Your task to perform on an android device: Open location settings Image 0: 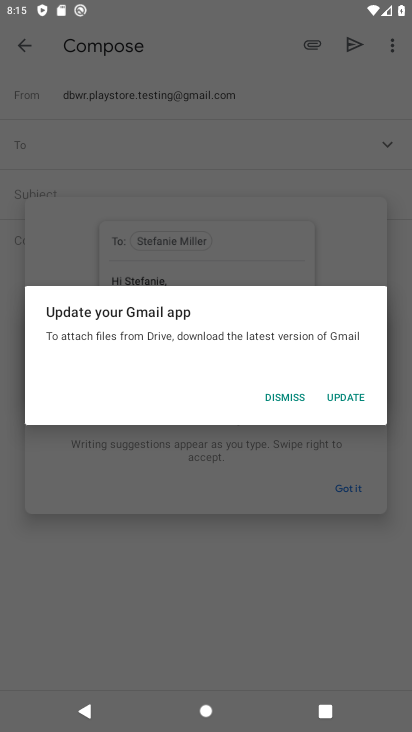
Step 0: press home button
Your task to perform on an android device: Open location settings Image 1: 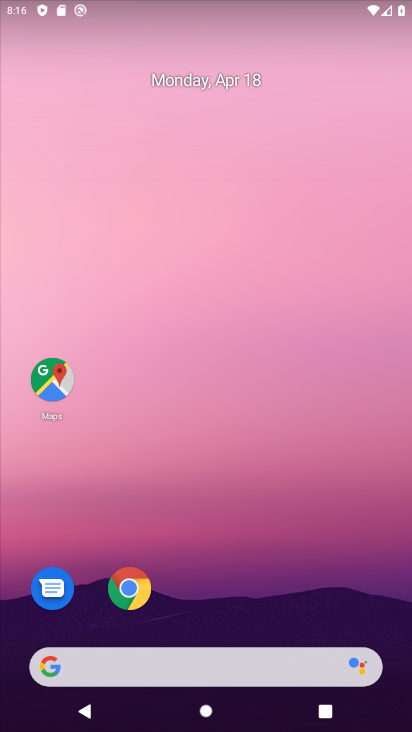
Step 1: drag from (192, 527) to (193, 60)
Your task to perform on an android device: Open location settings Image 2: 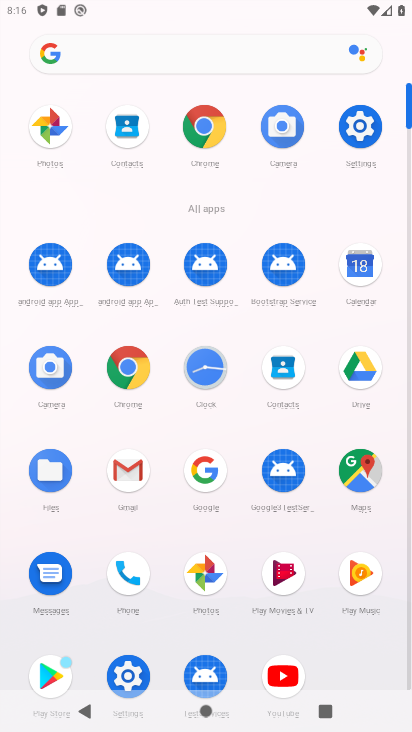
Step 2: click (358, 130)
Your task to perform on an android device: Open location settings Image 3: 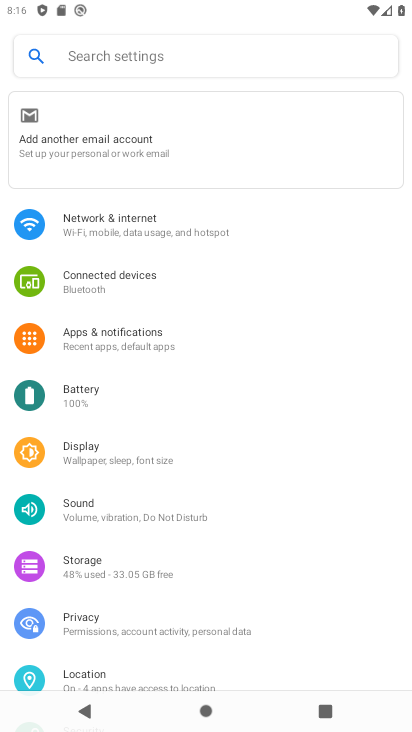
Step 3: click (112, 674)
Your task to perform on an android device: Open location settings Image 4: 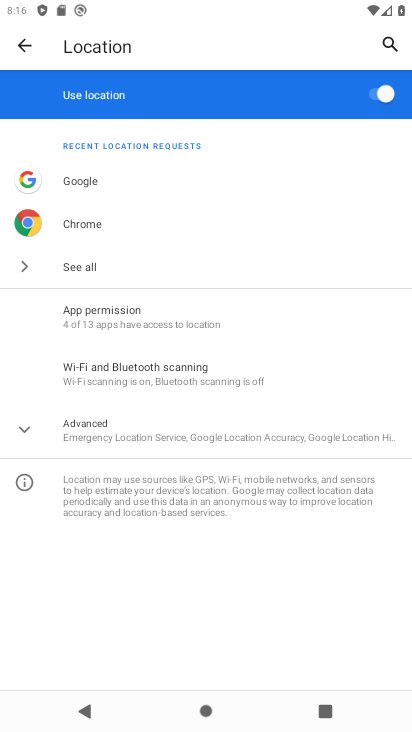
Step 4: click (141, 314)
Your task to perform on an android device: Open location settings Image 5: 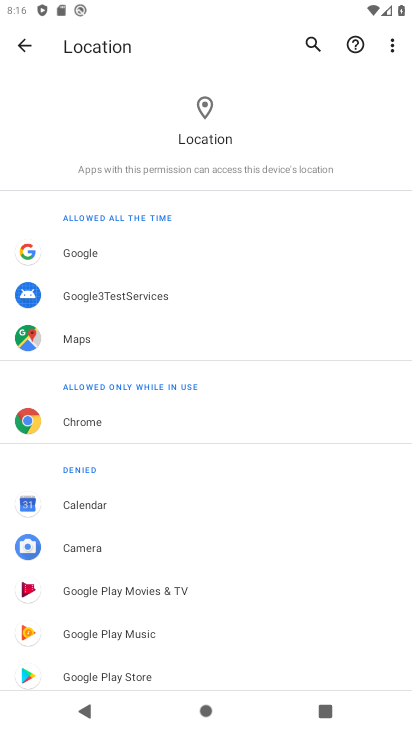
Step 5: drag from (152, 592) to (189, 179)
Your task to perform on an android device: Open location settings Image 6: 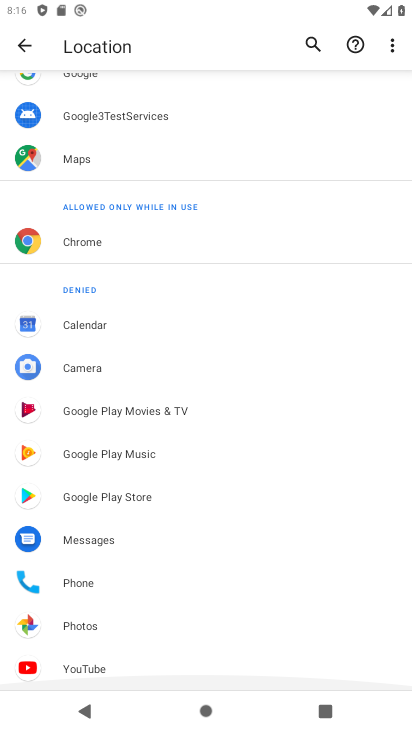
Step 6: click (31, 39)
Your task to perform on an android device: Open location settings Image 7: 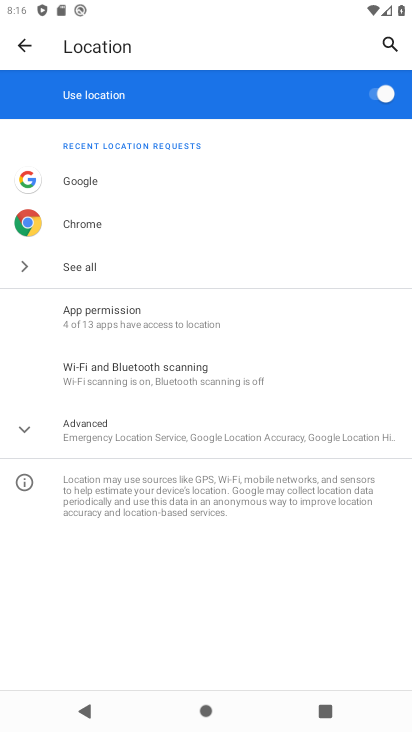
Step 7: click (127, 429)
Your task to perform on an android device: Open location settings Image 8: 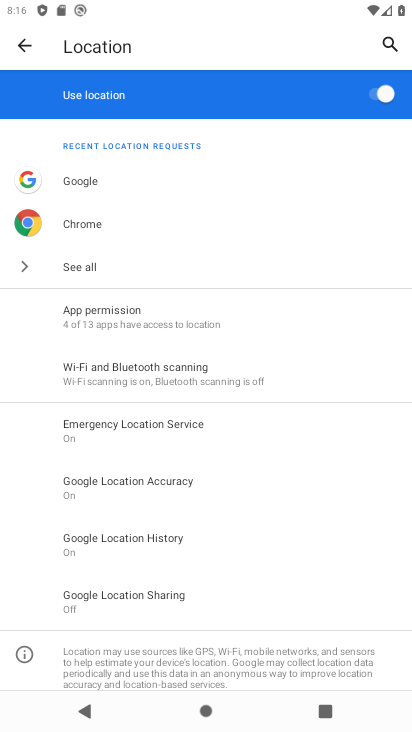
Step 8: task complete